Your task to perform on an android device: Open settings Image 0: 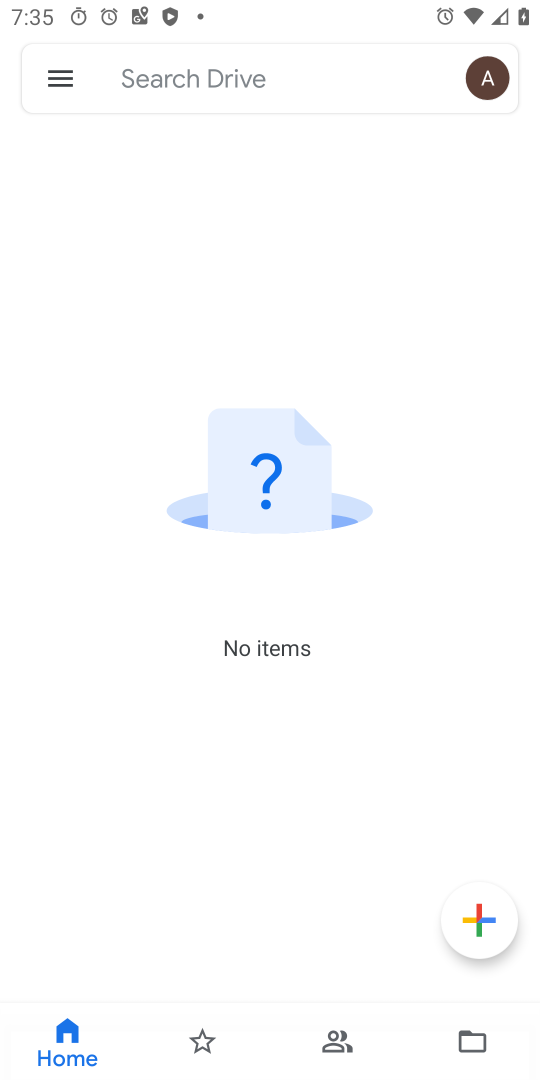
Step 0: press home button
Your task to perform on an android device: Open settings Image 1: 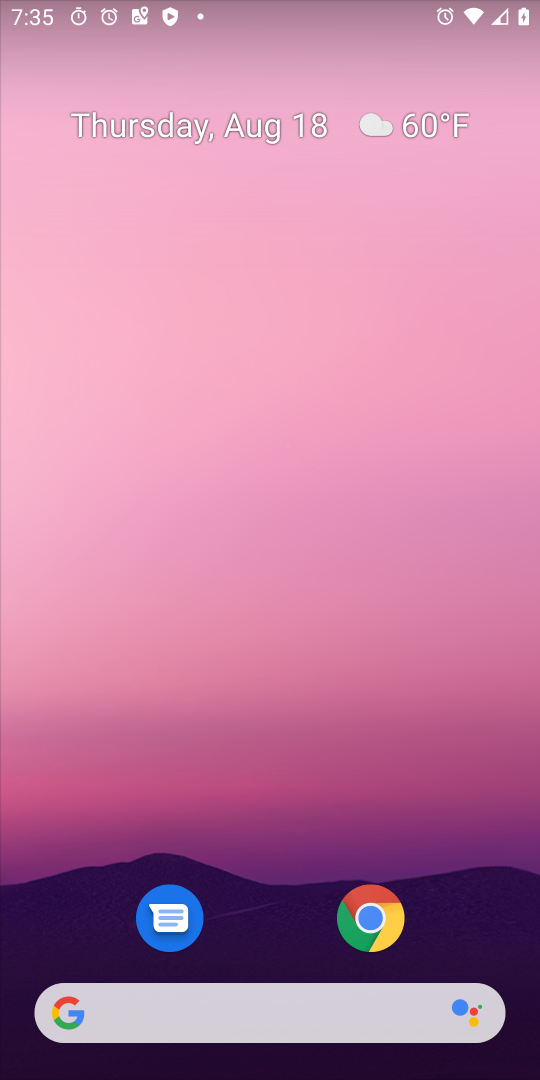
Step 1: drag from (267, 864) to (270, 69)
Your task to perform on an android device: Open settings Image 2: 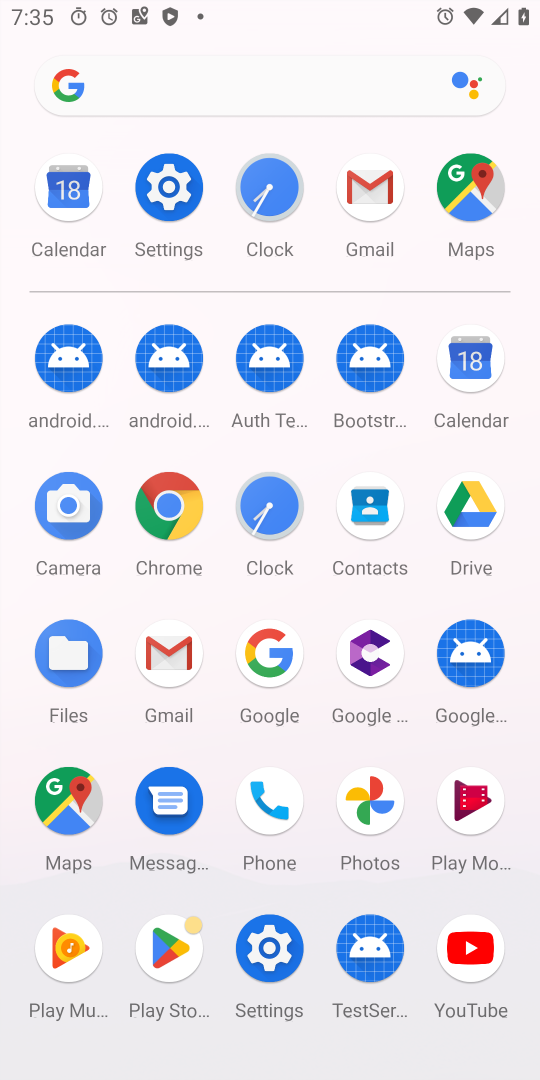
Step 2: click (176, 180)
Your task to perform on an android device: Open settings Image 3: 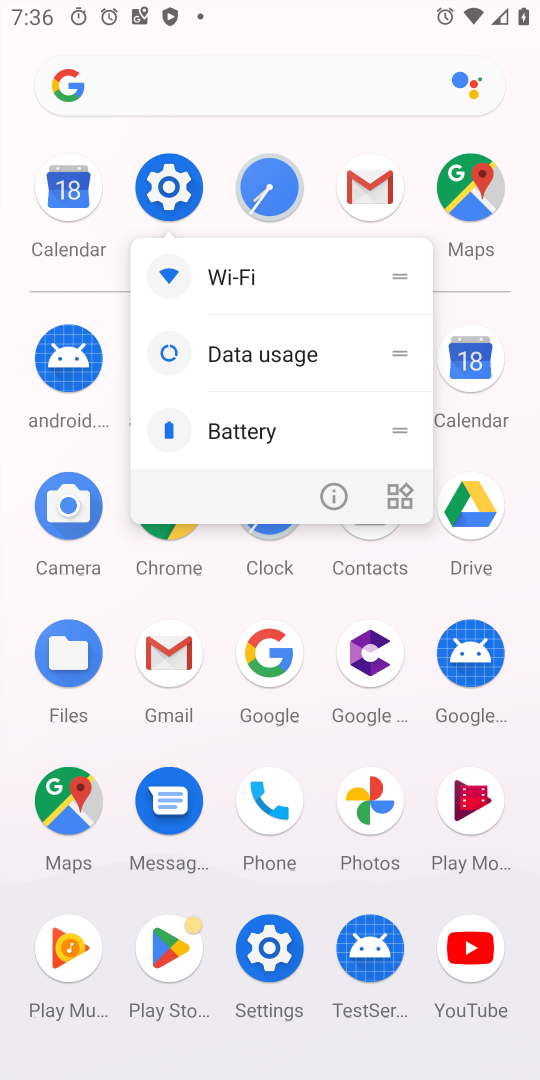
Step 3: click (168, 193)
Your task to perform on an android device: Open settings Image 4: 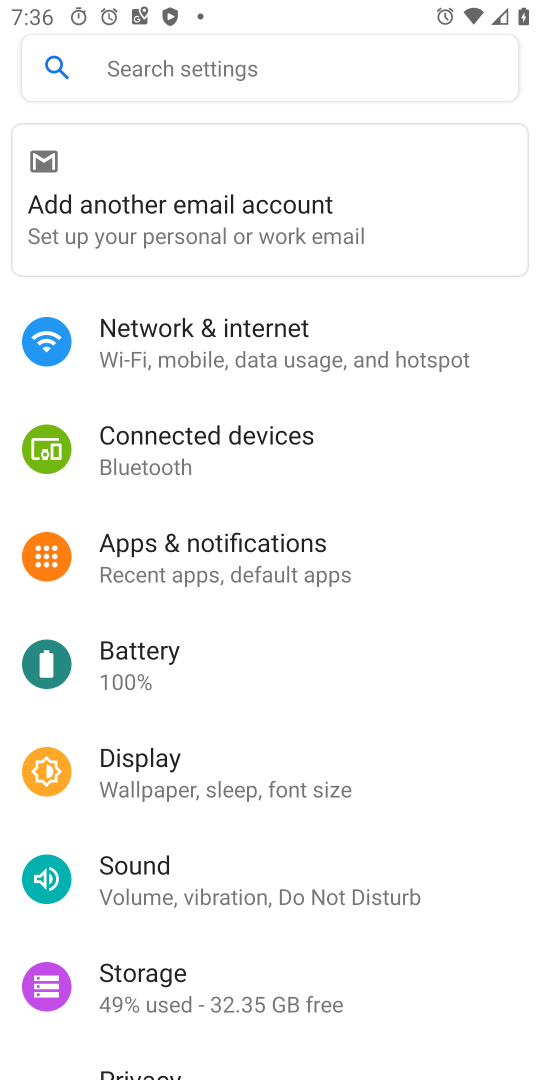
Step 4: task complete